Your task to perform on an android device: Search for pizza restaurants on Maps Image 0: 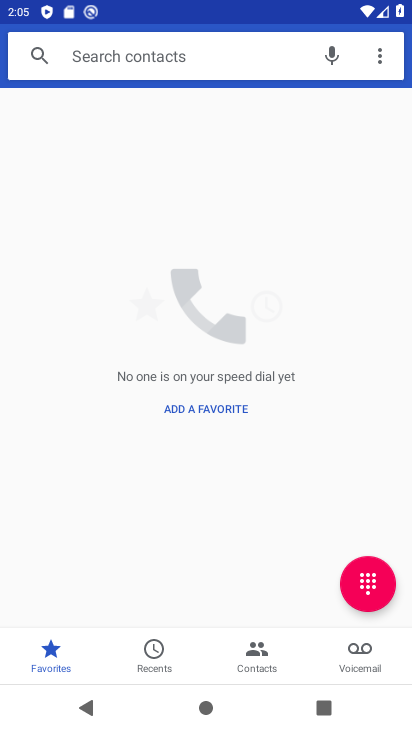
Step 0: press back button
Your task to perform on an android device: Search for pizza restaurants on Maps Image 1: 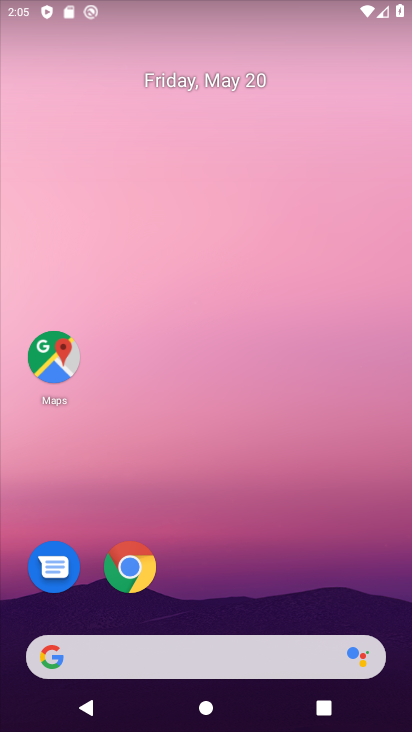
Step 1: drag from (205, 530) to (188, 0)
Your task to perform on an android device: Search for pizza restaurants on Maps Image 2: 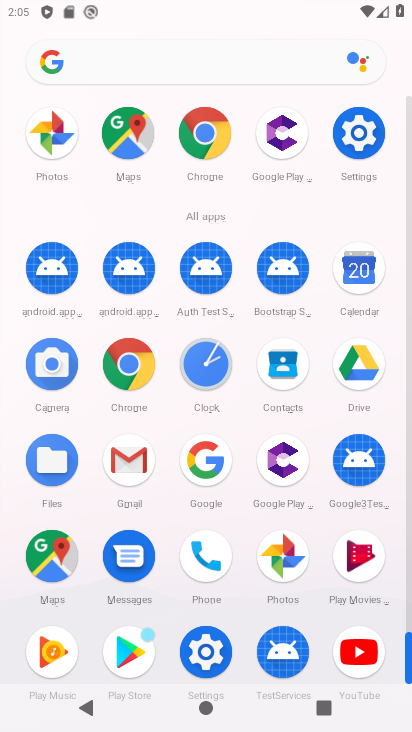
Step 2: drag from (5, 590) to (7, 212)
Your task to perform on an android device: Search for pizza restaurants on Maps Image 3: 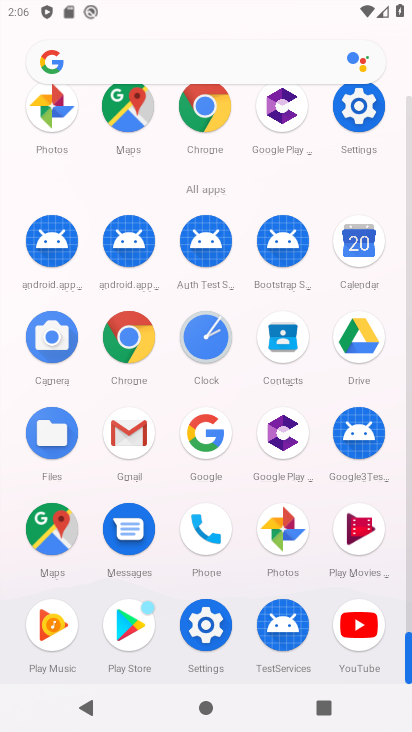
Step 3: click (53, 528)
Your task to perform on an android device: Search for pizza restaurants on Maps Image 4: 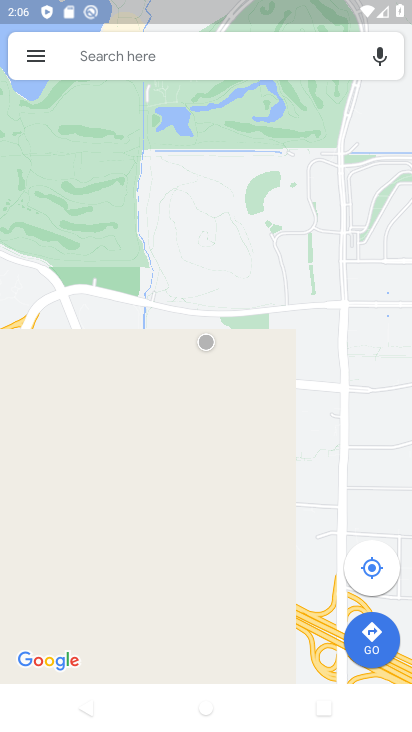
Step 4: click (162, 53)
Your task to perform on an android device: Search for pizza restaurants on Maps Image 5: 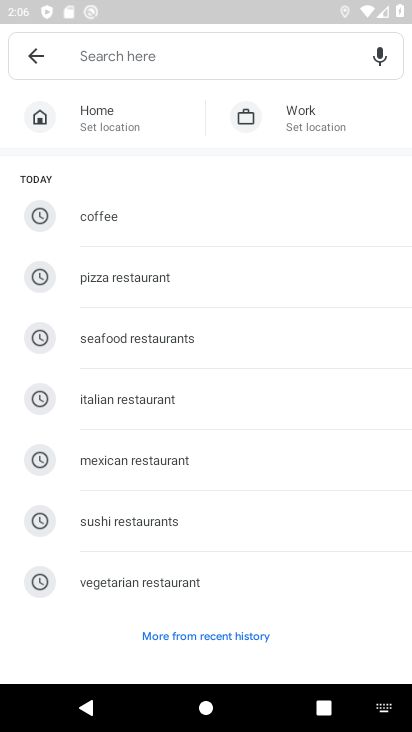
Step 5: click (185, 279)
Your task to perform on an android device: Search for pizza restaurants on Maps Image 6: 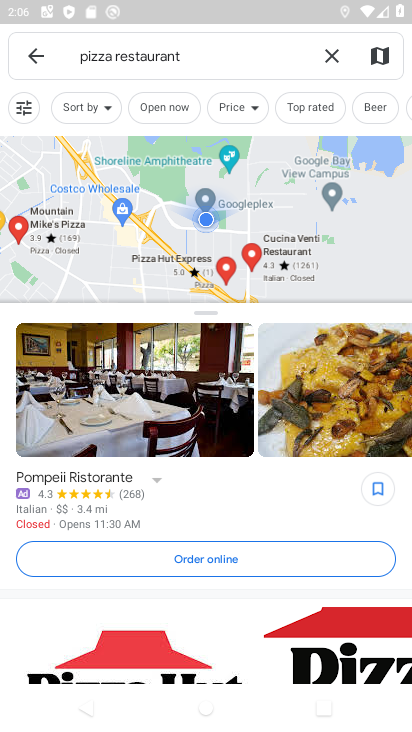
Step 6: task complete